Your task to perform on an android device: When is my next meeting? Image 0: 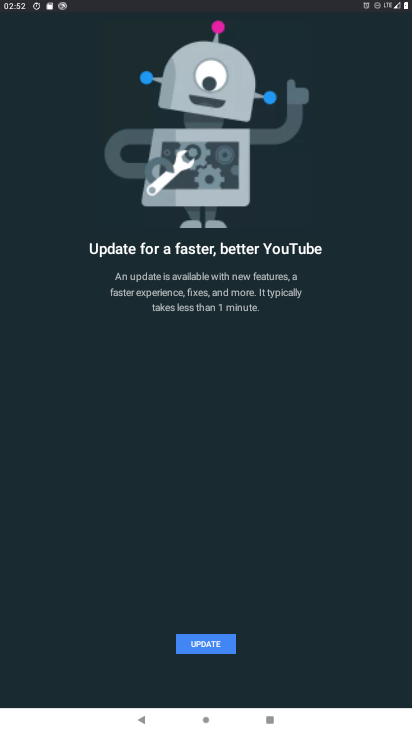
Step 0: press home button
Your task to perform on an android device: When is my next meeting? Image 1: 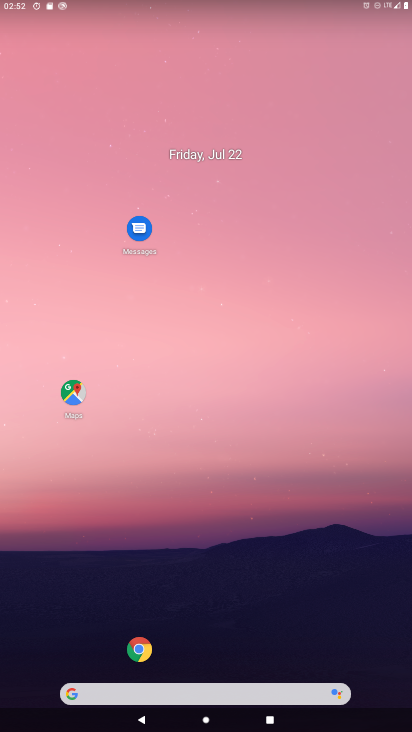
Step 1: drag from (61, 655) to (2, 691)
Your task to perform on an android device: When is my next meeting? Image 2: 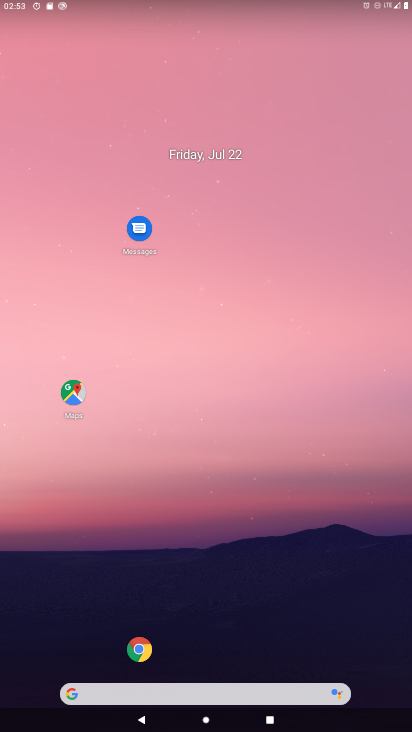
Step 2: drag from (44, 666) to (399, 65)
Your task to perform on an android device: When is my next meeting? Image 3: 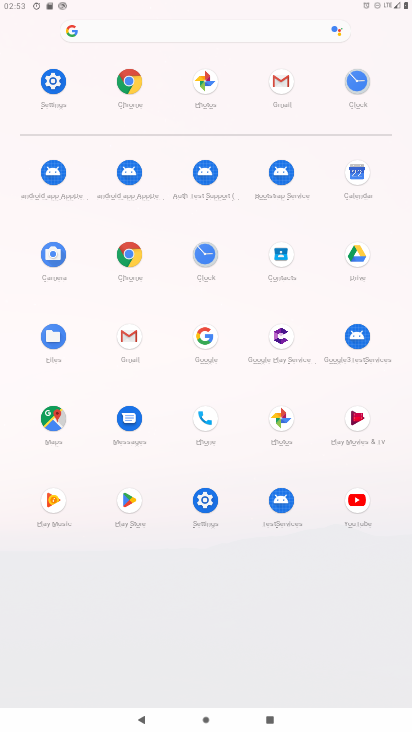
Step 3: click (347, 170)
Your task to perform on an android device: When is my next meeting? Image 4: 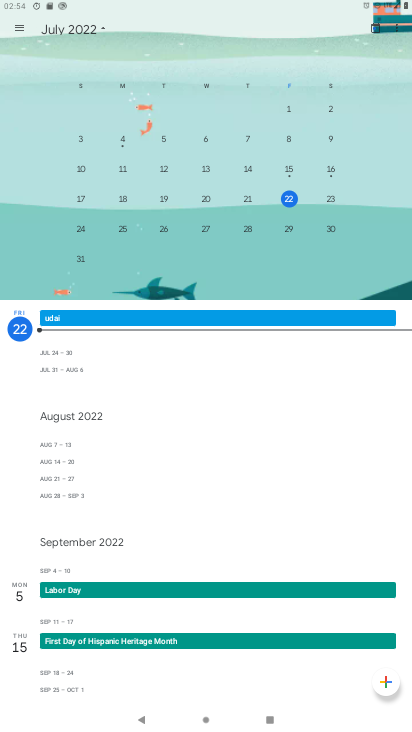
Step 4: task complete